Your task to perform on an android device: find which apps use the phone's location Image 0: 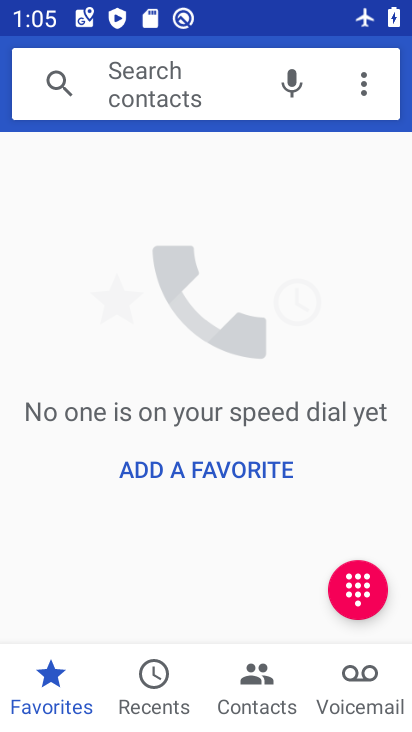
Step 0: drag from (345, 549) to (295, 357)
Your task to perform on an android device: find which apps use the phone's location Image 1: 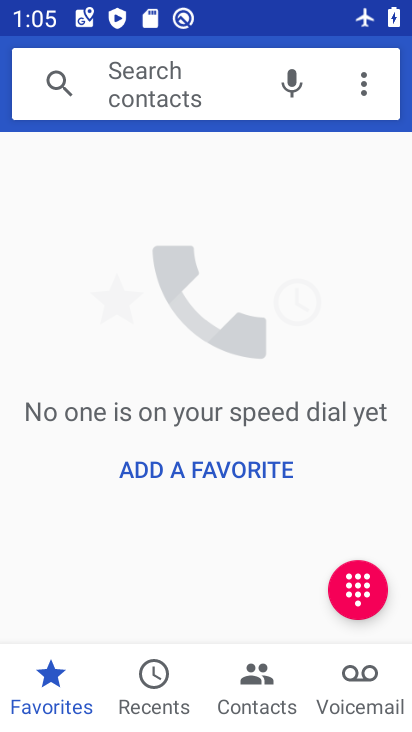
Step 1: press home button
Your task to perform on an android device: find which apps use the phone's location Image 2: 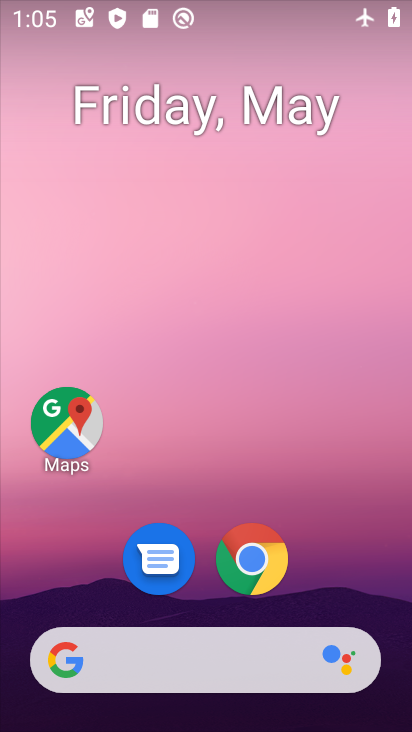
Step 2: drag from (342, 525) to (262, 110)
Your task to perform on an android device: find which apps use the phone's location Image 3: 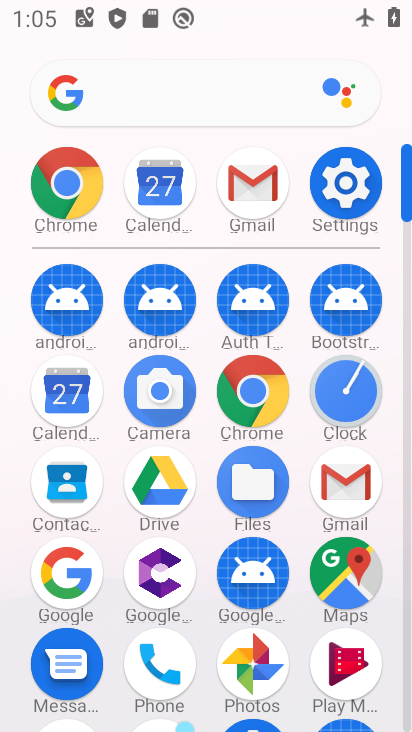
Step 3: click (340, 180)
Your task to perform on an android device: find which apps use the phone's location Image 4: 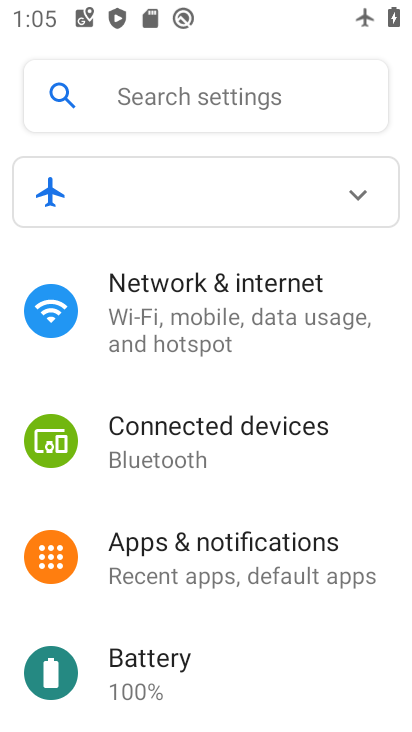
Step 4: drag from (173, 564) to (222, 103)
Your task to perform on an android device: find which apps use the phone's location Image 5: 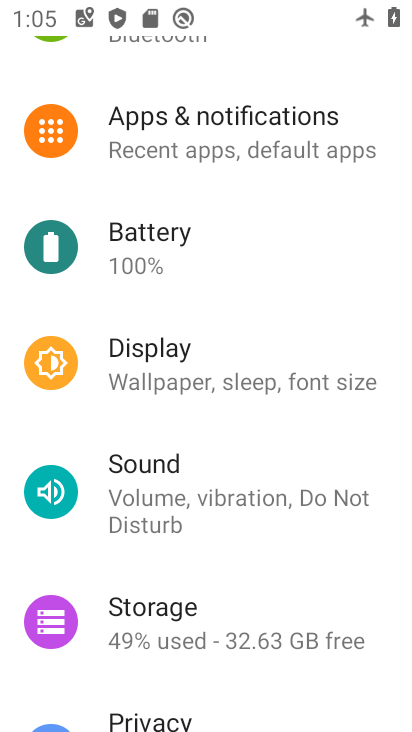
Step 5: drag from (222, 517) to (214, 133)
Your task to perform on an android device: find which apps use the phone's location Image 6: 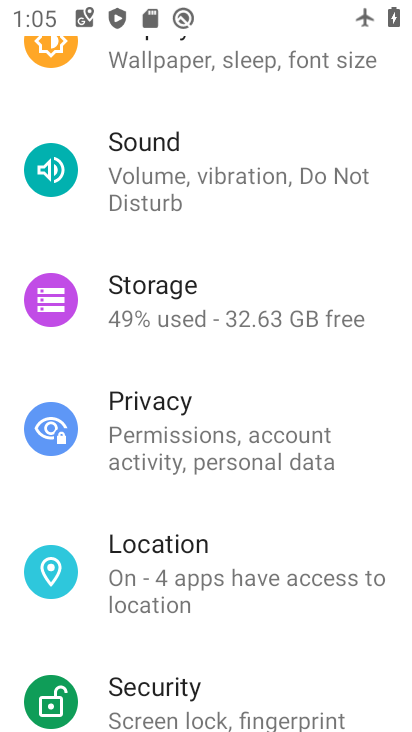
Step 6: click (182, 555)
Your task to perform on an android device: find which apps use the phone's location Image 7: 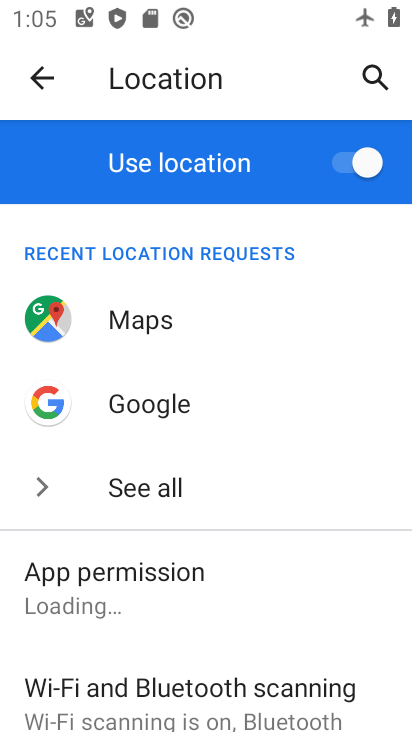
Step 7: drag from (285, 580) to (314, 171)
Your task to perform on an android device: find which apps use the phone's location Image 8: 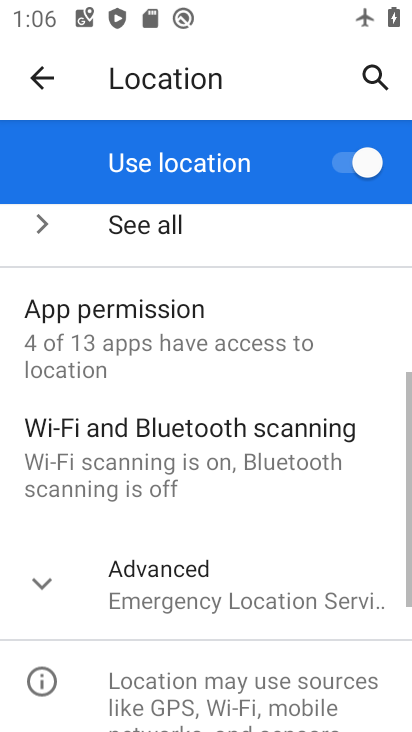
Step 8: click (160, 290)
Your task to perform on an android device: find which apps use the phone's location Image 9: 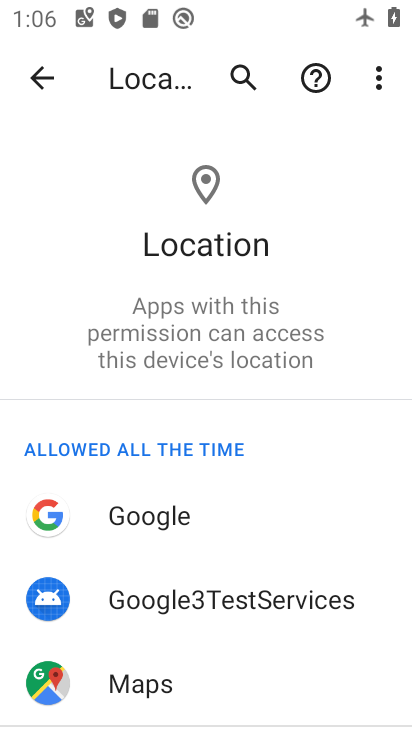
Step 9: task complete